Your task to perform on an android device: toggle pop-ups in chrome Image 0: 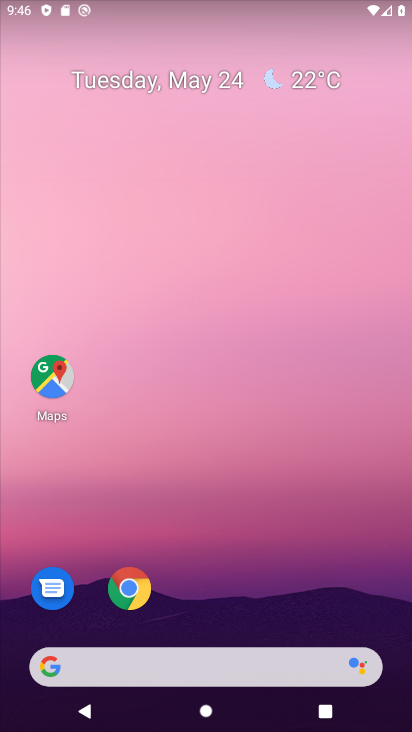
Step 0: click (132, 586)
Your task to perform on an android device: toggle pop-ups in chrome Image 1: 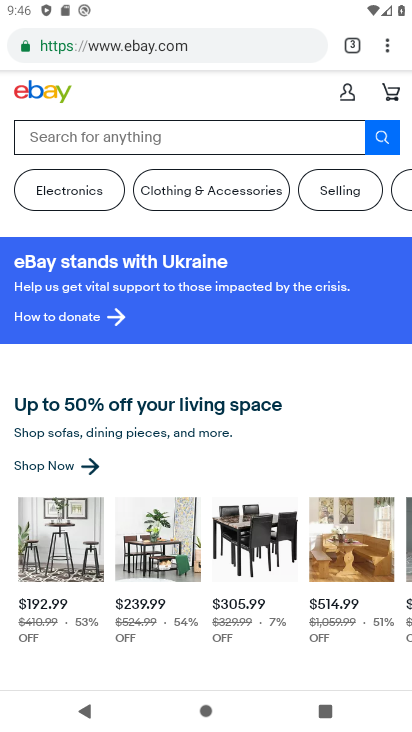
Step 1: click (397, 44)
Your task to perform on an android device: toggle pop-ups in chrome Image 2: 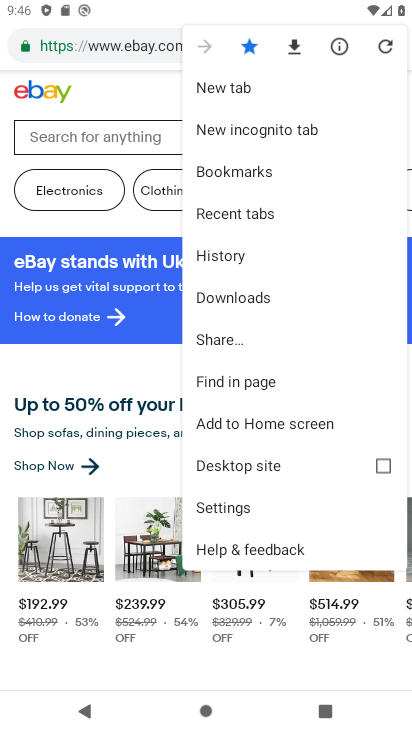
Step 2: click (248, 507)
Your task to perform on an android device: toggle pop-ups in chrome Image 3: 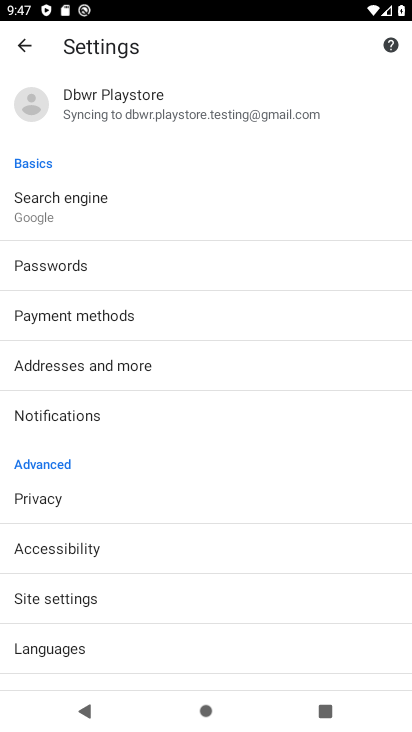
Step 3: click (60, 592)
Your task to perform on an android device: toggle pop-ups in chrome Image 4: 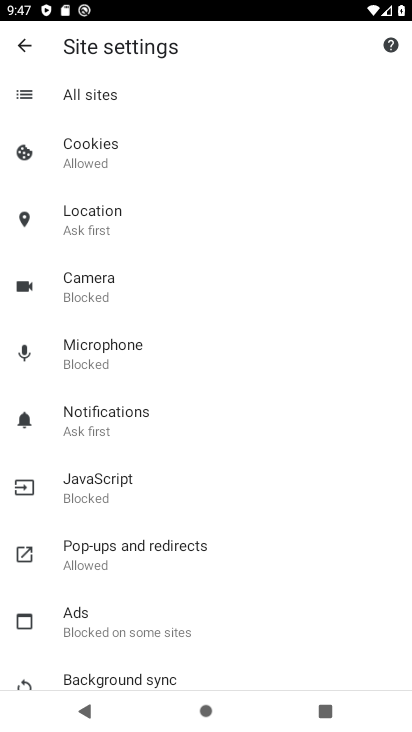
Step 4: click (160, 543)
Your task to perform on an android device: toggle pop-ups in chrome Image 5: 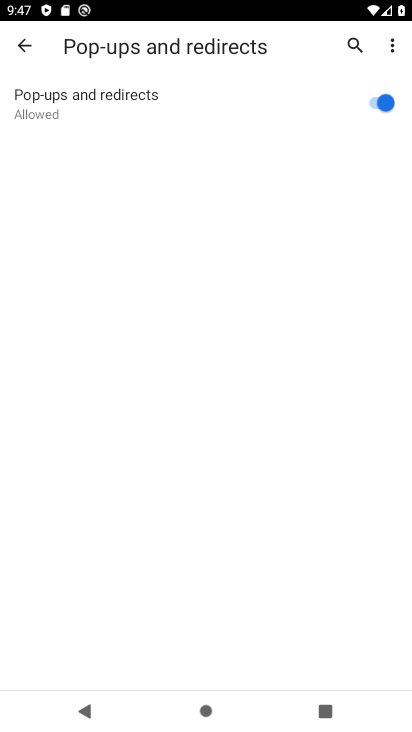
Step 5: click (389, 107)
Your task to perform on an android device: toggle pop-ups in chrome Image 6: 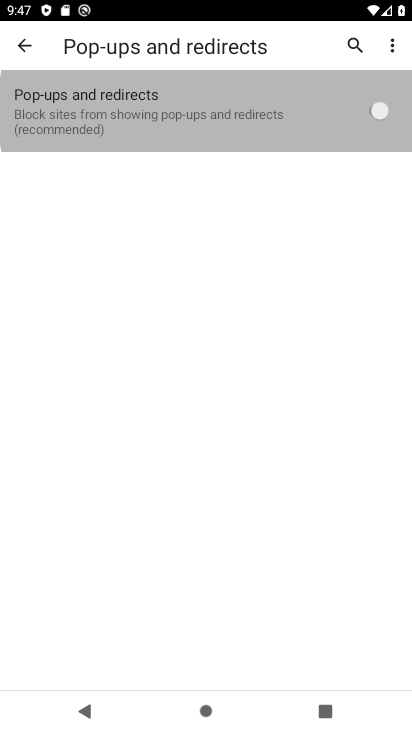
Step 6: click (389, 107)
Your task to perform on an android device: toggle pop-ups in chrome Image 7: 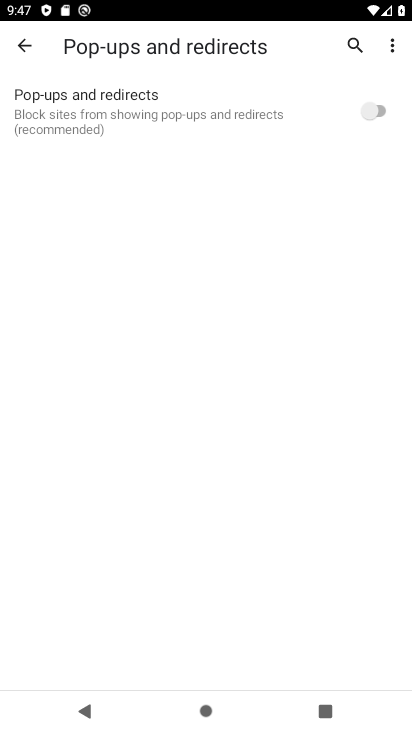
Step 7: click (389, 107)
Your task to perform on an android device: toggle pop-ups in chrome Image 8: 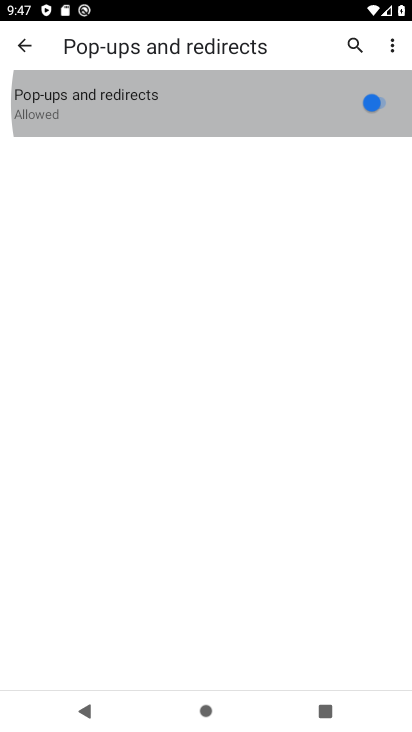
Step 8: click (389, 107)
Your task to perform on an android device: toggle pop-ups in chrome Image 9: 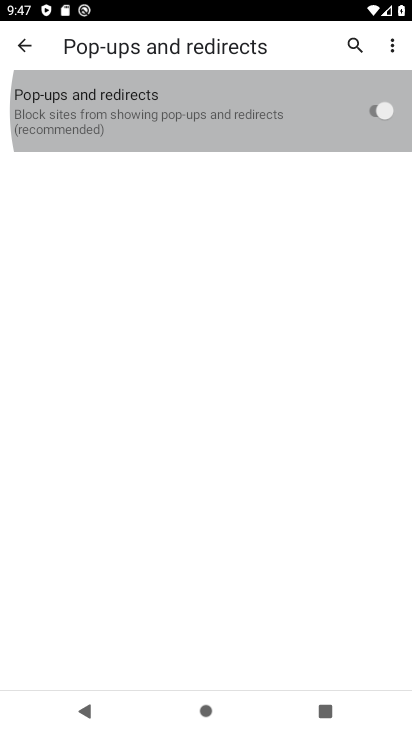
Step 9: click (389, 107)
Your task to perform on an android device: toggle pop-ups in chrome Image 10: 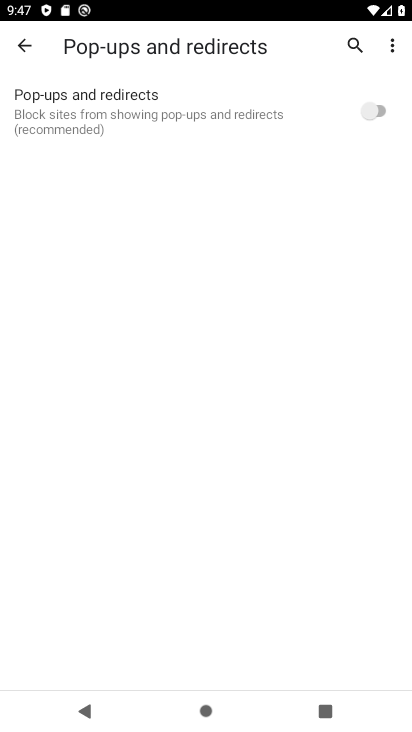
Step 10: click (389, 107)
Your task to perform on an android device: toggle pop-ups in chrome Image 11: 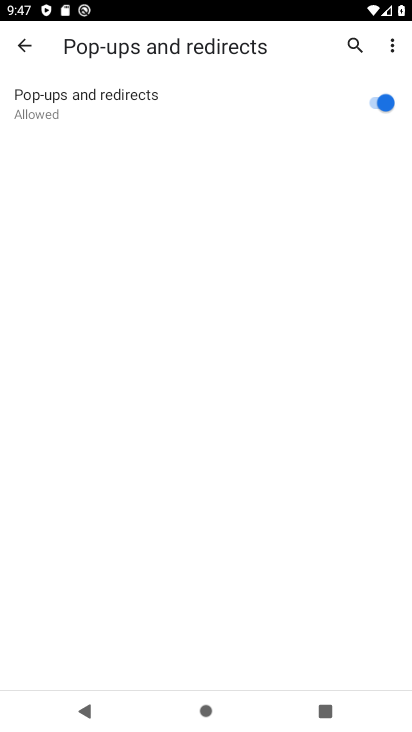
Step 11: task complete